Your task to perform on an android device: Turn off the flashlight Image 0: 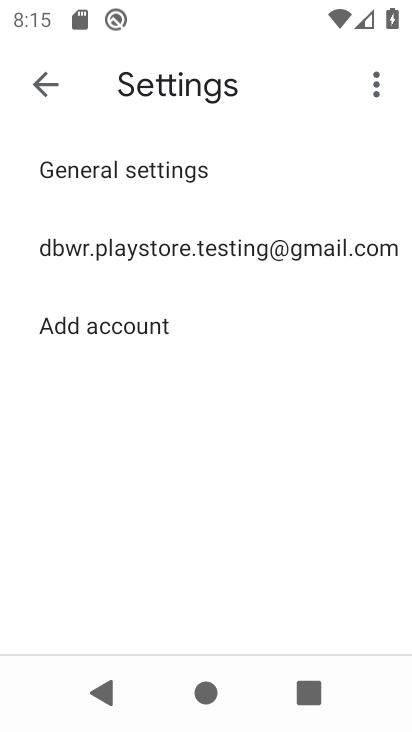
Step 0: press home button
Your task to perform on an android device: Turn off the flashlight Image 1: 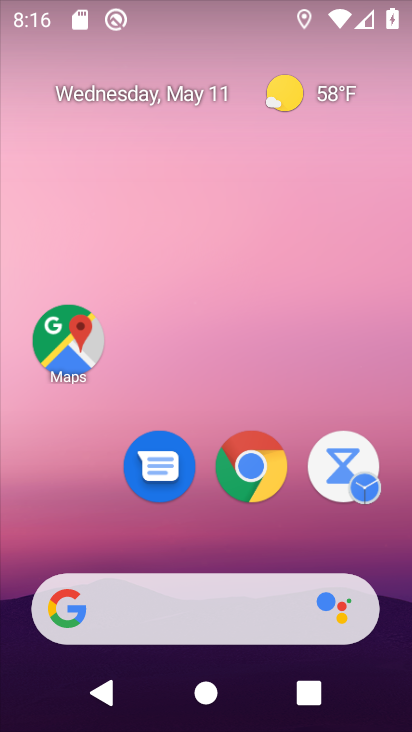
Step 1: drag from (210, 533) to (304, 15)
Your task to perform on an android device: Turn off the flashlight Image 2: 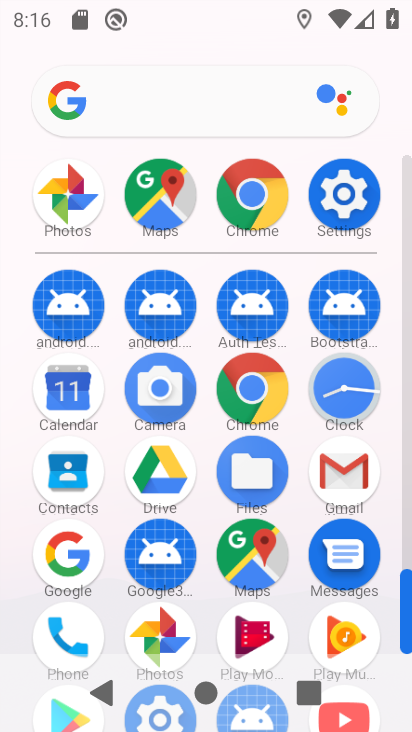
Step 2: click (323, 190)
Your task to perform on an android device: Turn off the flashlight Image 3: 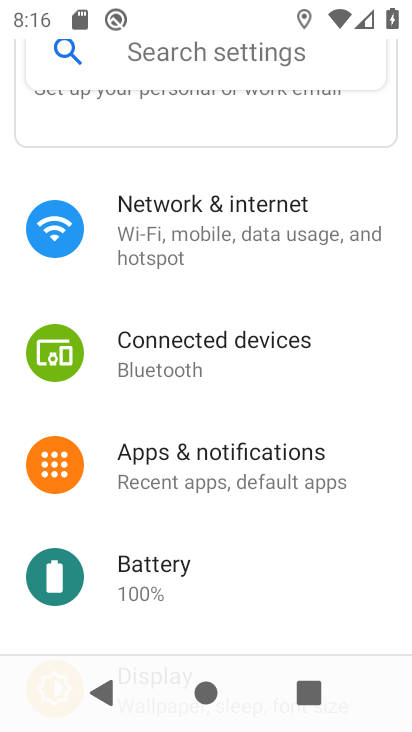
Step 3: task complete